Your task to perform on an android device: open chrome privacy settings Image 0: 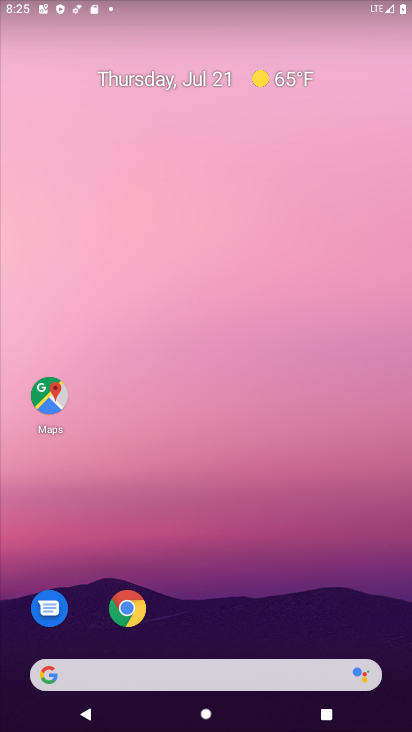
Step 0: drag from (192, 678) to (242, 121)
Your task to perform on an android device: open chrome privacy settings Image 1: 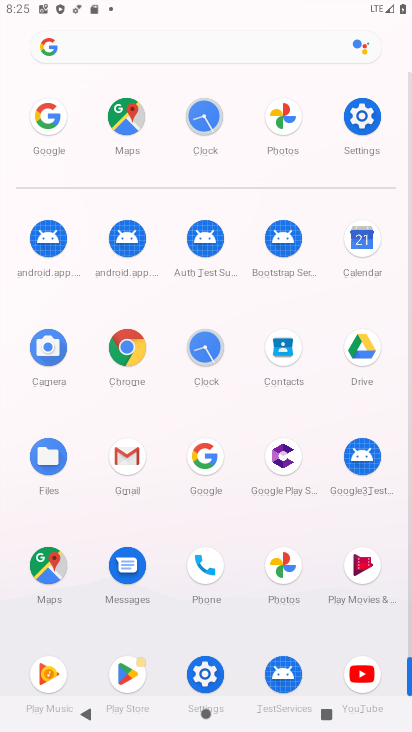
Step 1: click (127, 350)
Your task to perform on an android device: open chrome privacy settings Image 2: 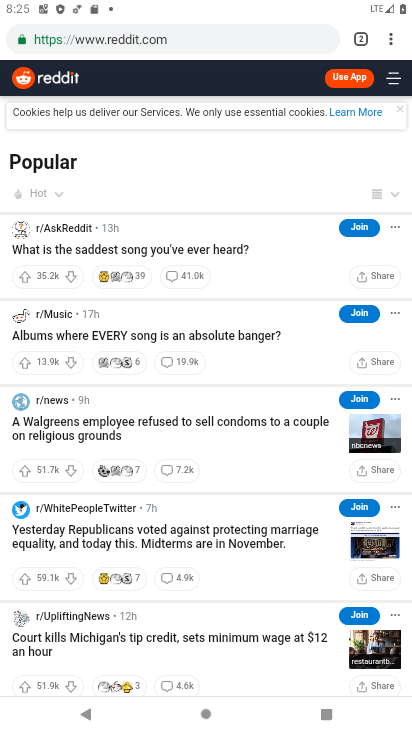
Step 2: click (393, 40)
Your task to perform on an android device: open chrome privacy settings Image 3: 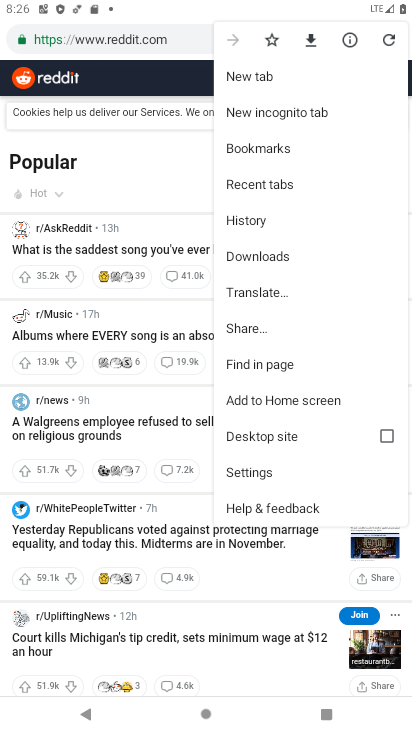
Step 3: click (263, 473)
Your task to perform on an android device: open chrome privacy settings Image 4: 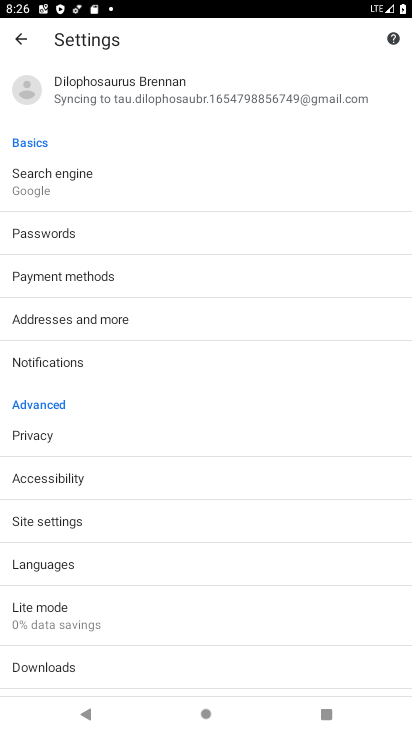
Step 4: click (36, 436)
Your task to perform on an android device: open chrome privacy settings Image 5: 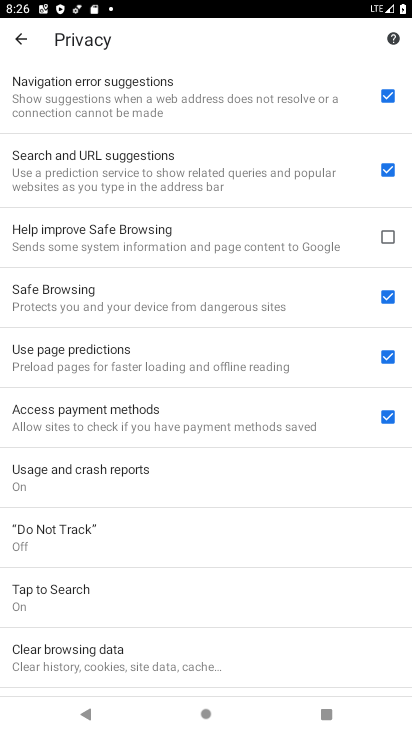
Step 5: task complete